Your task to perform on an android device: open app "Contacts" Image 0: 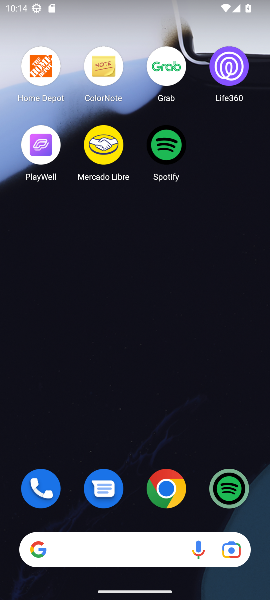
Step 0: press home button
Your task to perform on an android device: open app "Contacts" Image 1: 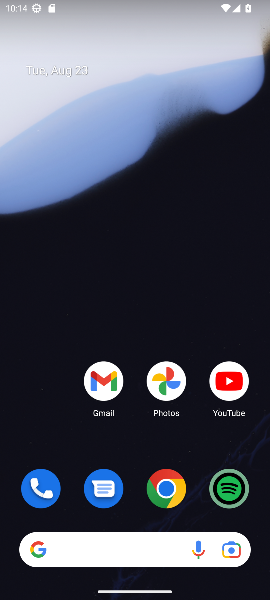
Step 1: drag from (125, 485) to (101, 178)
Your task to perform on an android device: open app "Contacts" Image 2: 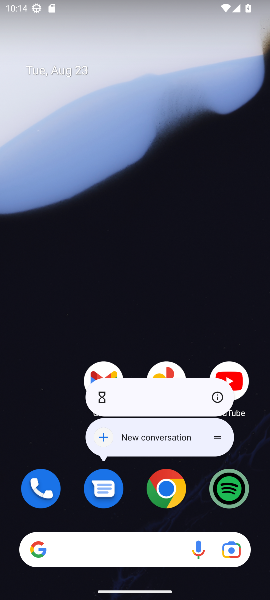
Step 2: drag from (49, 458) to (43, 413)
Your task to perform on an android device: open app "Contacts" Image 3: 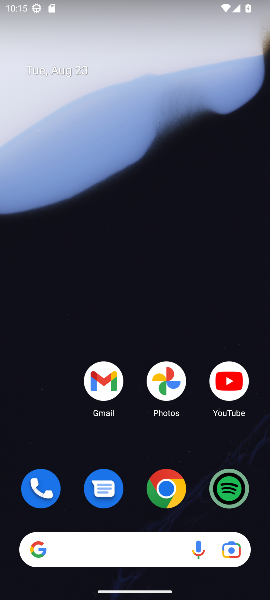
Step 3: drag from (126, 219) to (144, 53)
Your task to perform on an android device: open app "Contacts" Image 4: 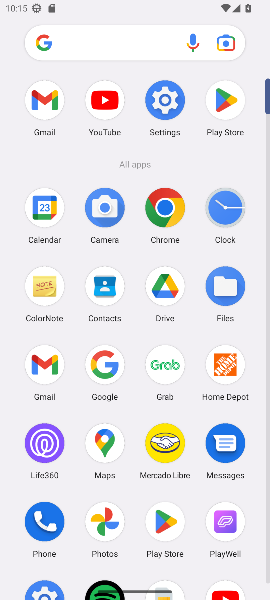
Step 4: click (223, 105)
Your task to perform on an android device: open app "Contacts" Image 5: 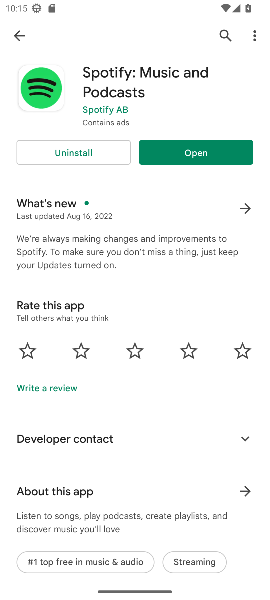
Step 5: type "Contacts"
Your task to perform on an android device: open app "Contacts" Image 6: 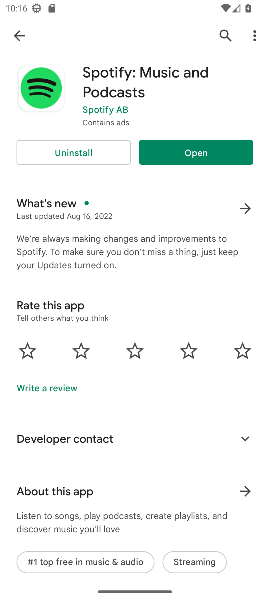
Step 6: click (19, 23)
Your task to perform on an android device: open app "Contacts" Image 7: 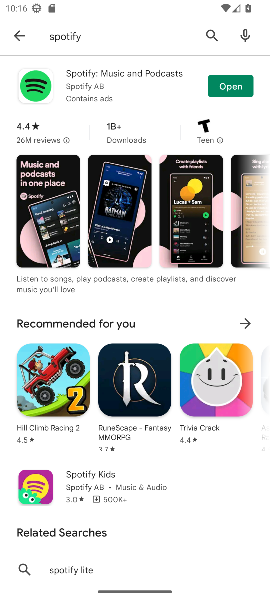
Step 7: click (15, 30)
Your task to perform on an android device: open app "Contacts" Image 8: 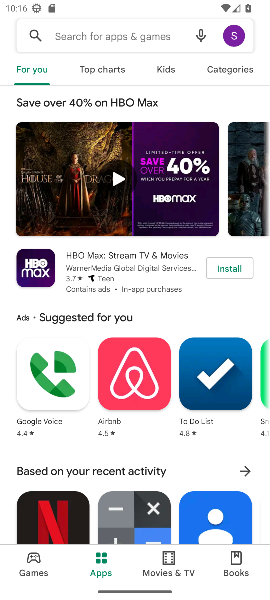
Step 8: click (79, 33)
Your task to perform on an android device: open app "Contacts" Image 9: 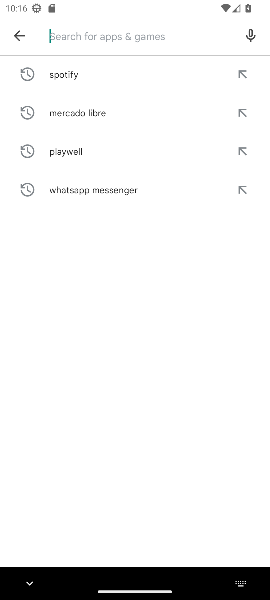
Step 9: type "Contacts"
Your task to perform on an android device: open app "Contacts" Image 10: 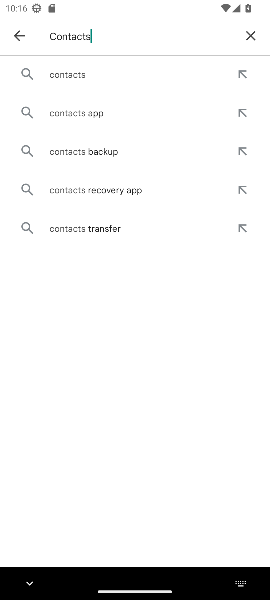
Step 10: click (66, 73)
Your task to perform on an android device: open app "Contacts" Image 11: 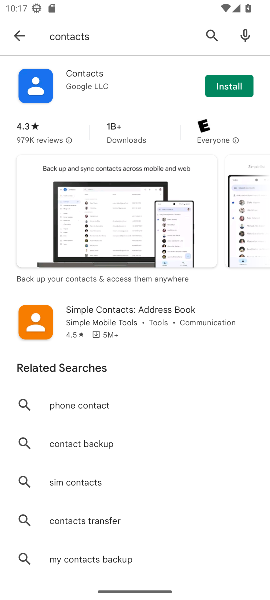
Step 11: click (212, 85)
Your task to perform on an android device: open app "Contacts" Image 12: 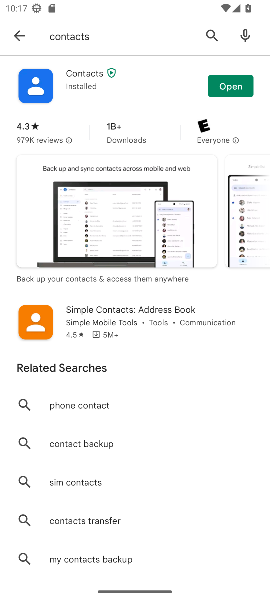
Step 12: click (212, 85)
Your task to perform on an android device: open app "Contacts" Image 13: 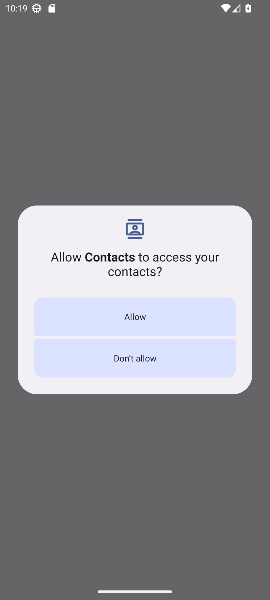
Step 13: click (146, 322)
Your task to perform on an android device: open app "Contacts" Image 14: 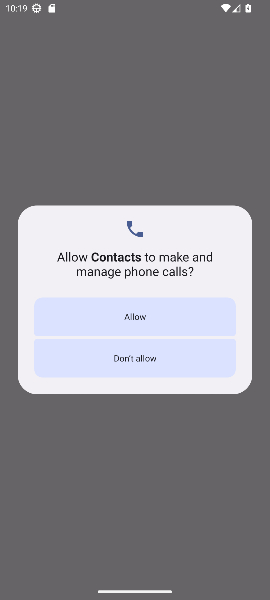
Step 14: task complete